Your task to perform on an android device: toggle priority inbox in the gmail app Image 0: 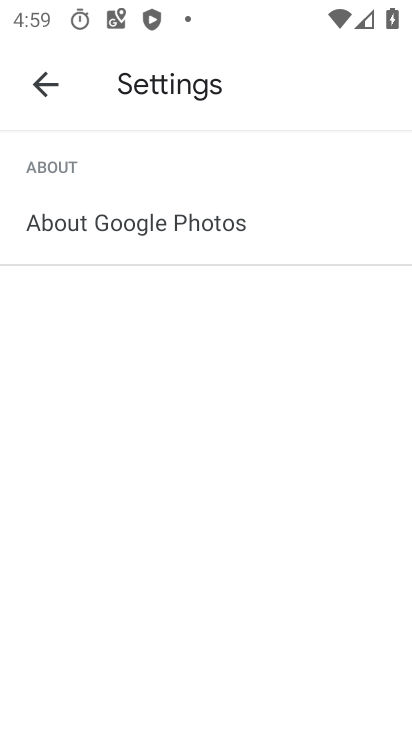
Step 0: press home button
Your task to perform on an android device: toggle priority inbox in the gmail app Image 1: 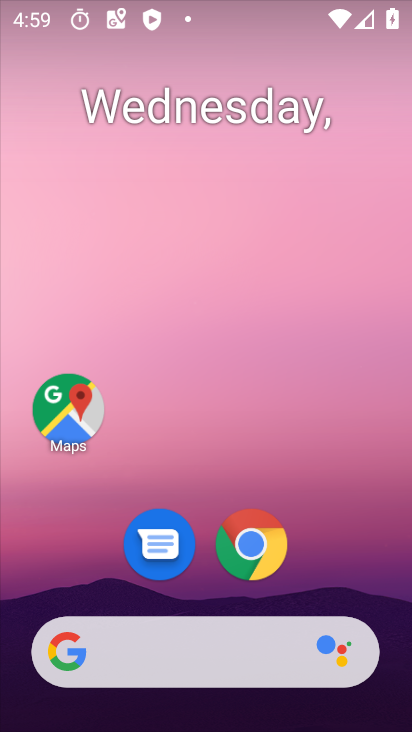
Step 1: drag from (194, 625) to (203, 4)
Your task to perform on an android device: toggle priority inbox in the gmail app Image 2: 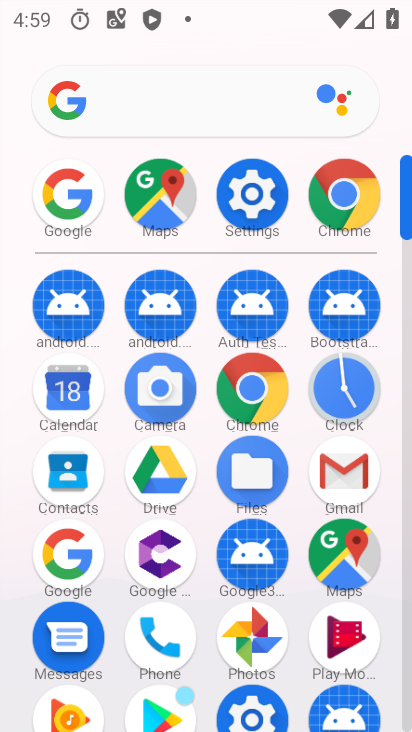
Step 2: click (343, 474)
Your task to perform on an android device: toggle priority inbox in the gmail app Image 3: 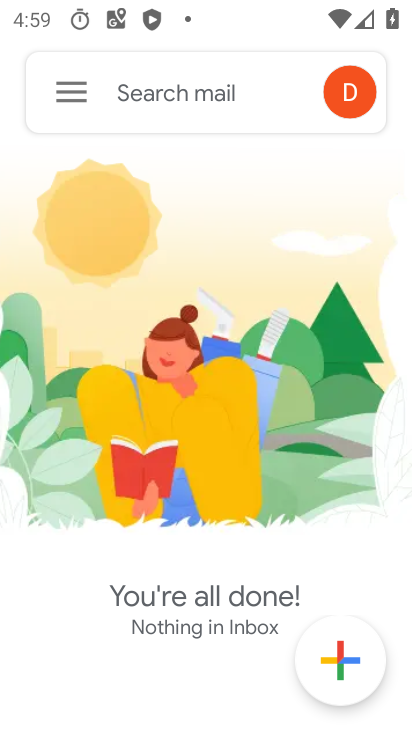
Step 3: click (59, 109)
Your task to perform on an android device: toggle priority inbox in the gmail app Image 4: 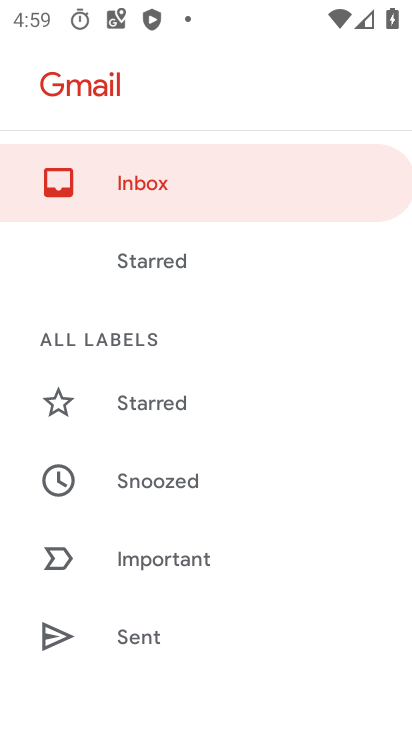
Step 4: drag from (231, 605) to (184, 100)
Your task to perform on an android device: toggle priority inbox in the gmail app Image 5: 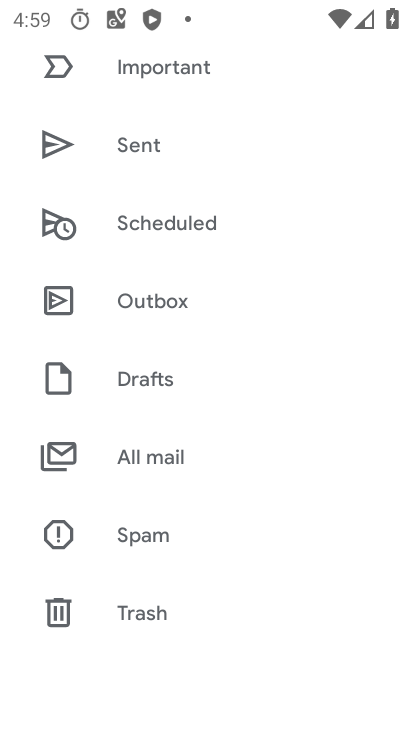
Step 5: drag from (173, 624) to (112, 80)
Your task to perform on an android device: toggle priority inbox in the gmail app Image 6: 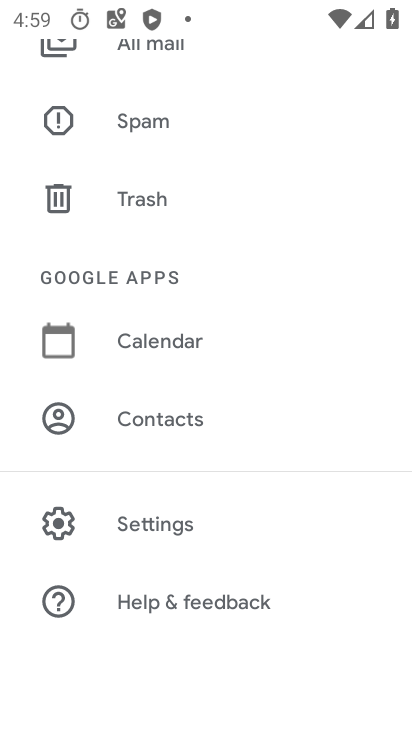
Step 6: click (194, 529)
Your task to perform on an android device: toggle priority inbox in the gmail app Image 7: 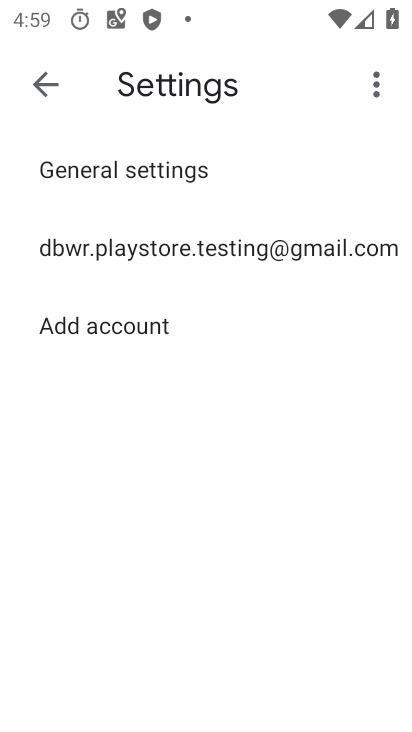
Step 7: click (125, 265)
Your task to perform on an android device: toggle priority inbox in the gmail app Image 8: 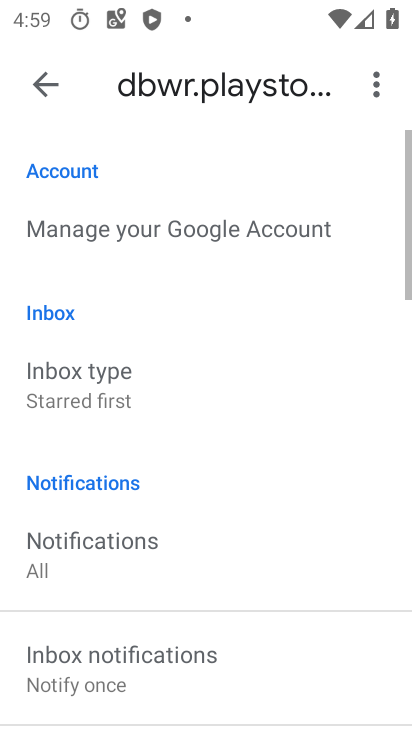
Step 8: click (130, 402)
Your task to perform on an android device: toggle priority inbox in the gmail app Image 9: 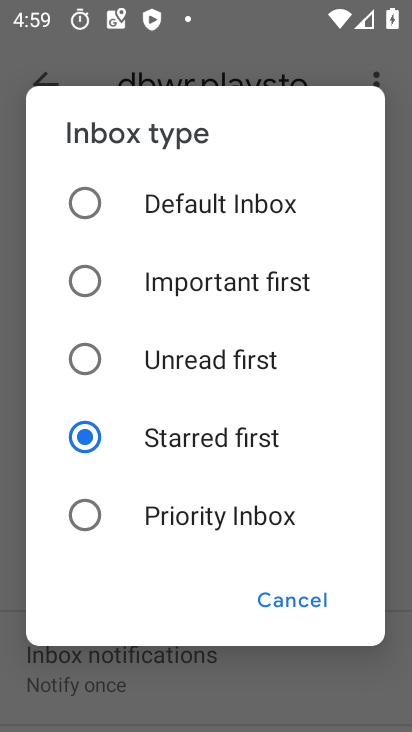
Step 9: click (148, 505)
Your task to perform on an android device: toggle priority inbox in the gmail app Image 10: 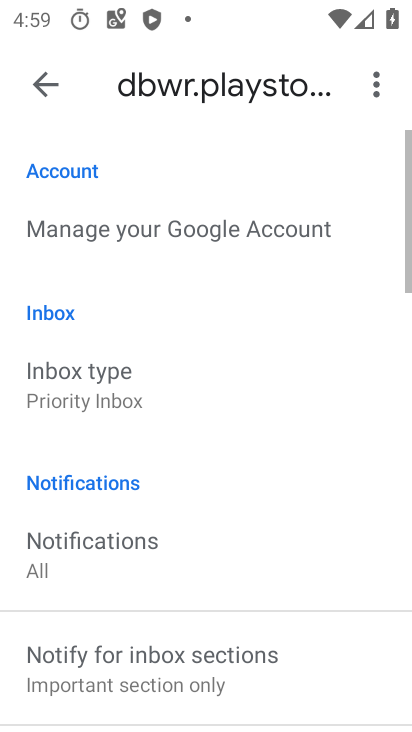
Step 10: task complete